Your task to perform on an android device: turn on priority inbox in the gmail app Image 0: 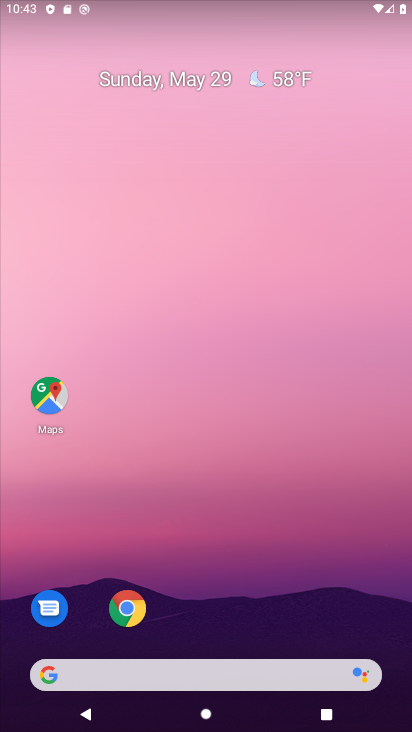
Step 0: drag from (269, 622) to (267, 242)
Your task to perform on an android device: turn on priority inbox in the gmail app Image 1: 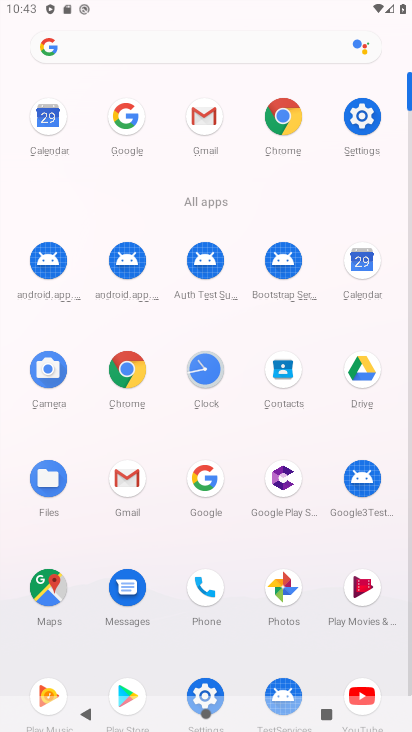
Step 1: click (204, 127)
Your task to perform on an android device: turn on priority inbox in the gmail app Image 2: 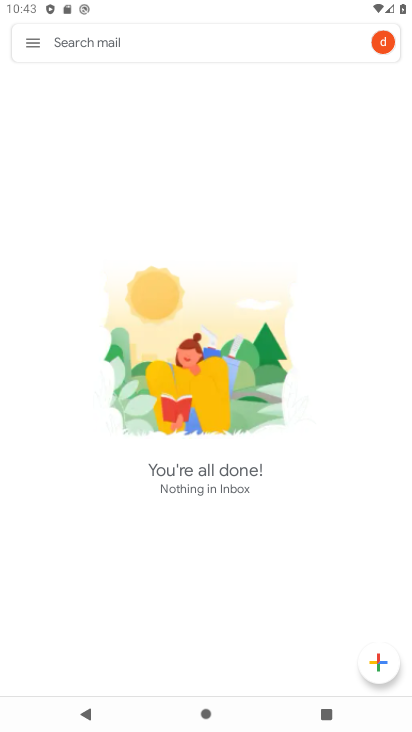
Step 2: click (33, 49)
Your task to perform on an android device: turn on priority inbox in the gmail app Image 3: 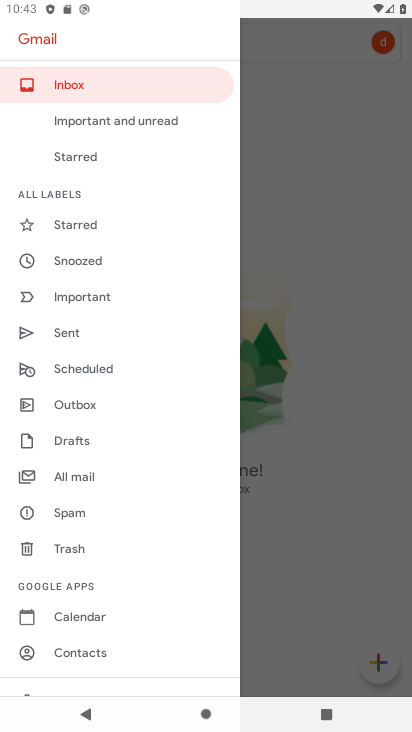
Step 3: drag from (83, 665) to (101, 216)
Your task to perform on an android device: turn on priority inbox in the gmail app Image 4: 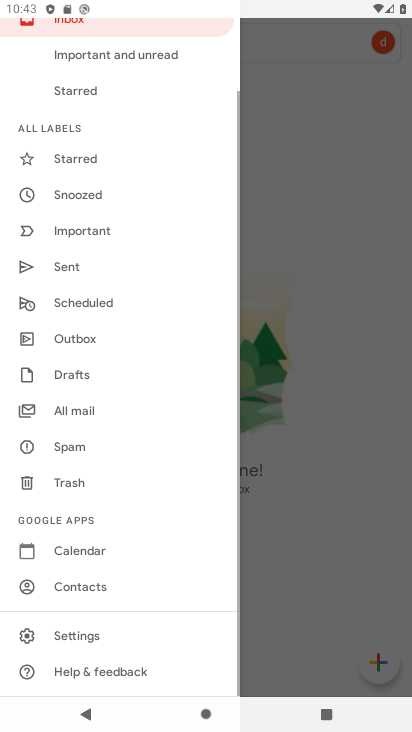
Step 4: click (86, 637)
Your task to perform on an android device: turn on priority inbox in the gmail app Image 5: 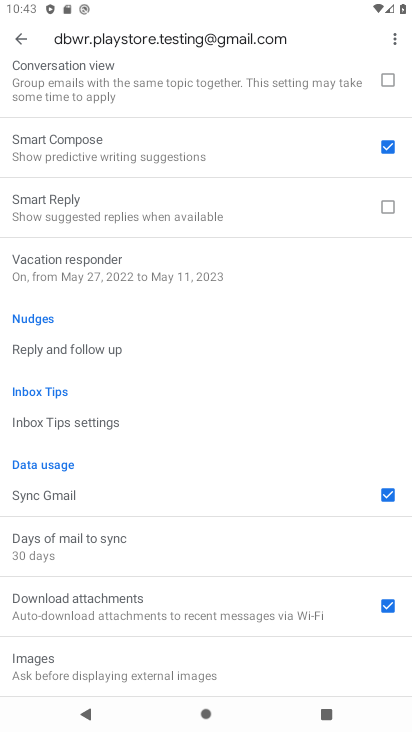
Step 5: drag from (70, 50) to (87, 646)
Your task to perform on an android device: turn on priority inbox in the gmail app Image 6: 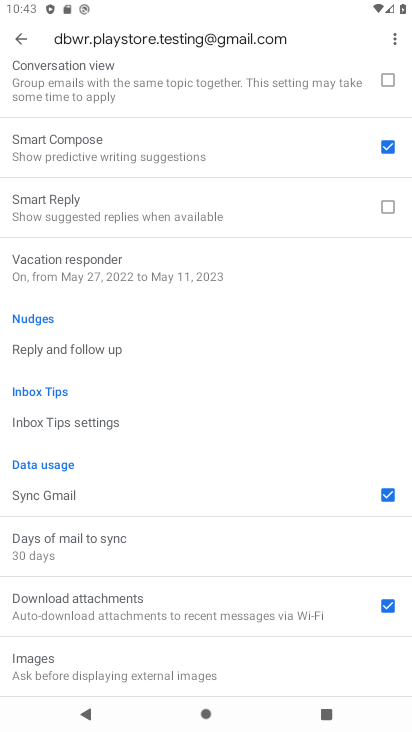
Step 6: drag from (135, 74) to (181, 513)
Your task to perform on an android device: turn on priority inbox in the gmail app Image 7: 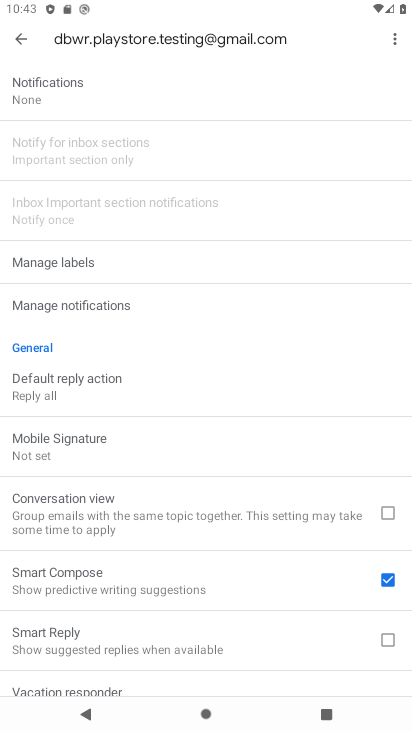
Step 7: drag from (142, 74) to (152, 565)
Your task to perform on an android device: turn on priority inbox in the gmail app Image 8: 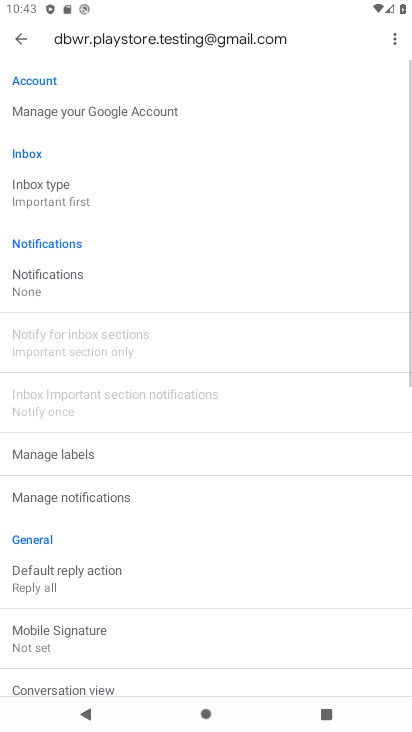
Step 8: click (43, 200)
Your task to perform on an android device: turn on priority inbox in the gmail app Image 9: 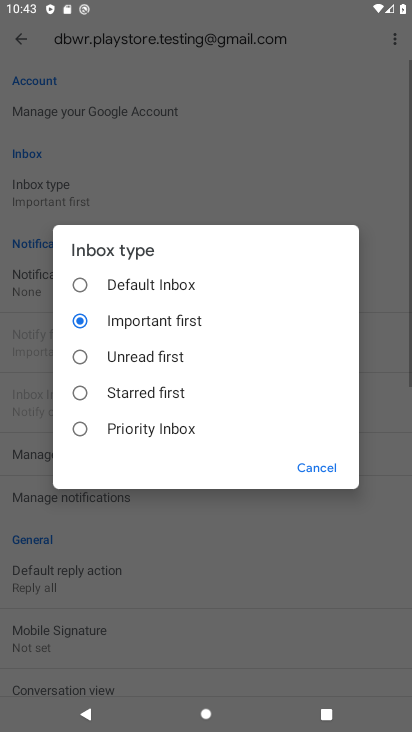
Step 9: click (149, 423)
Your task to perform on an android device: turn on priority inbox in the gmail app Image 10: 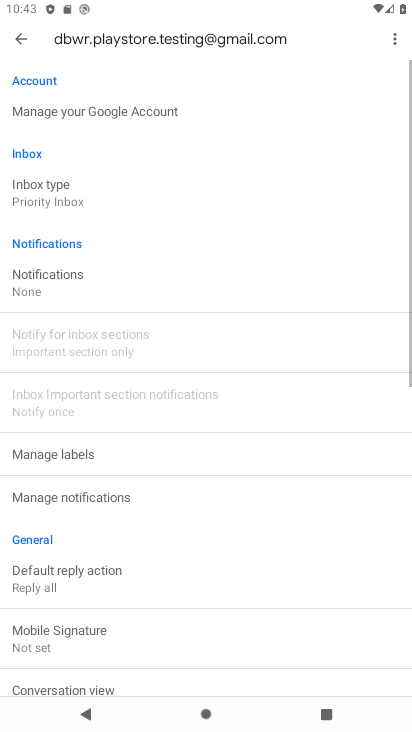
Step 10: task complete